Your task to perform on an android device: open app "ColorNote Notepad Notes" (install if not already installed) and enter user name: "unbridled@gmail.com" and password: "regularly" Image 0: 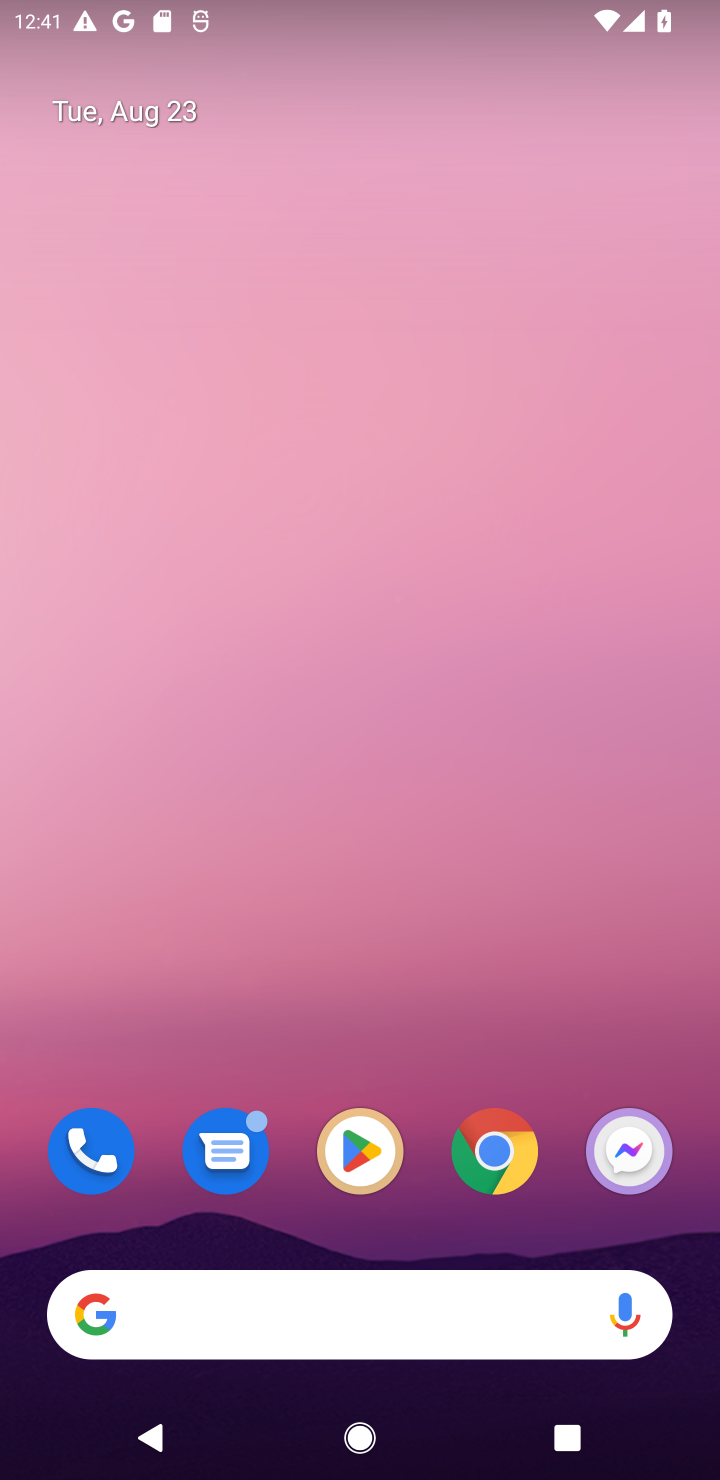
Step 0: click (310, 1122)
Your task to perform on an android device: open app "ColorNote Notepad Notes" (install if not already installed) and enter user name: "unbridled@gmail.com" and password: "regularly" Image 1: 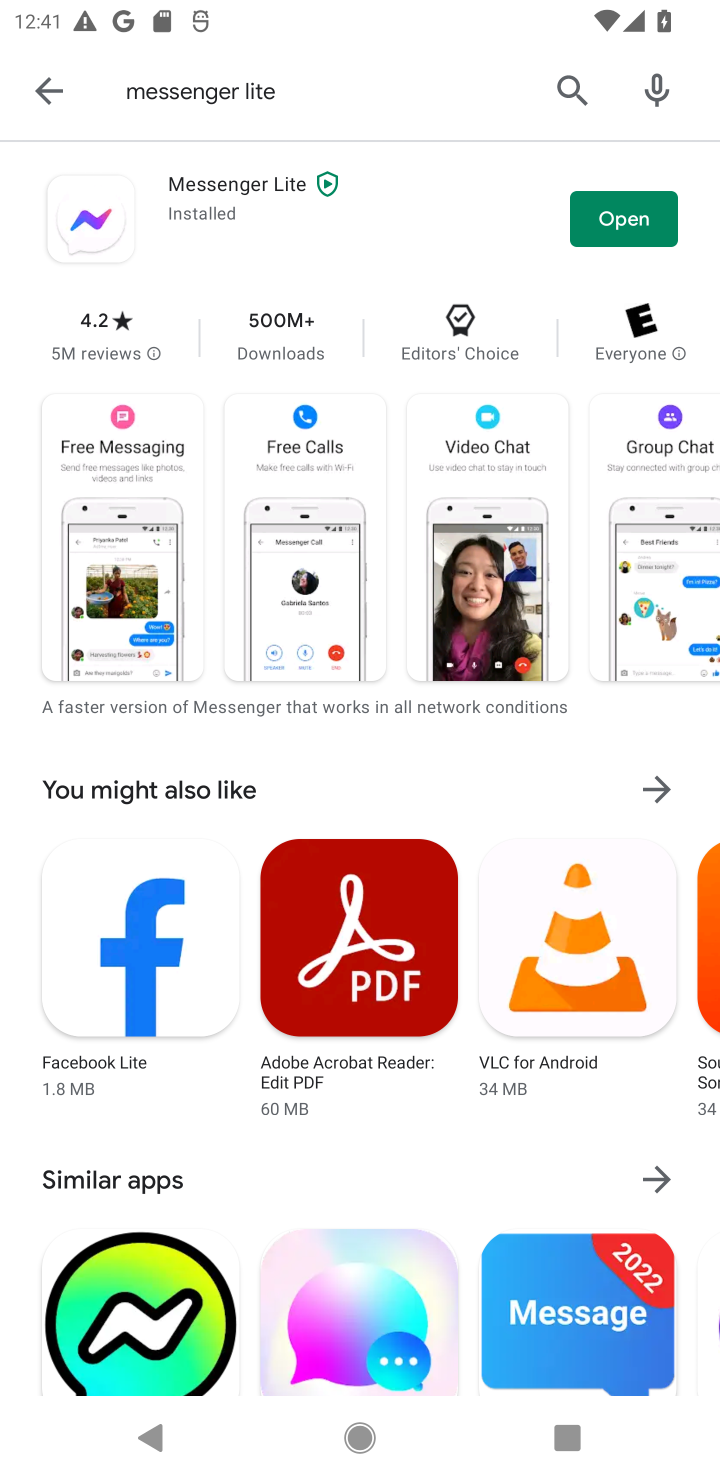
Step 1: click (565, 86)
Your task to perform on an android device: open app "ColorNote Notepad Notes" (install if not already installed) and enter user name: "unbridled@gmail.com" and password: "regularly" Image 2: 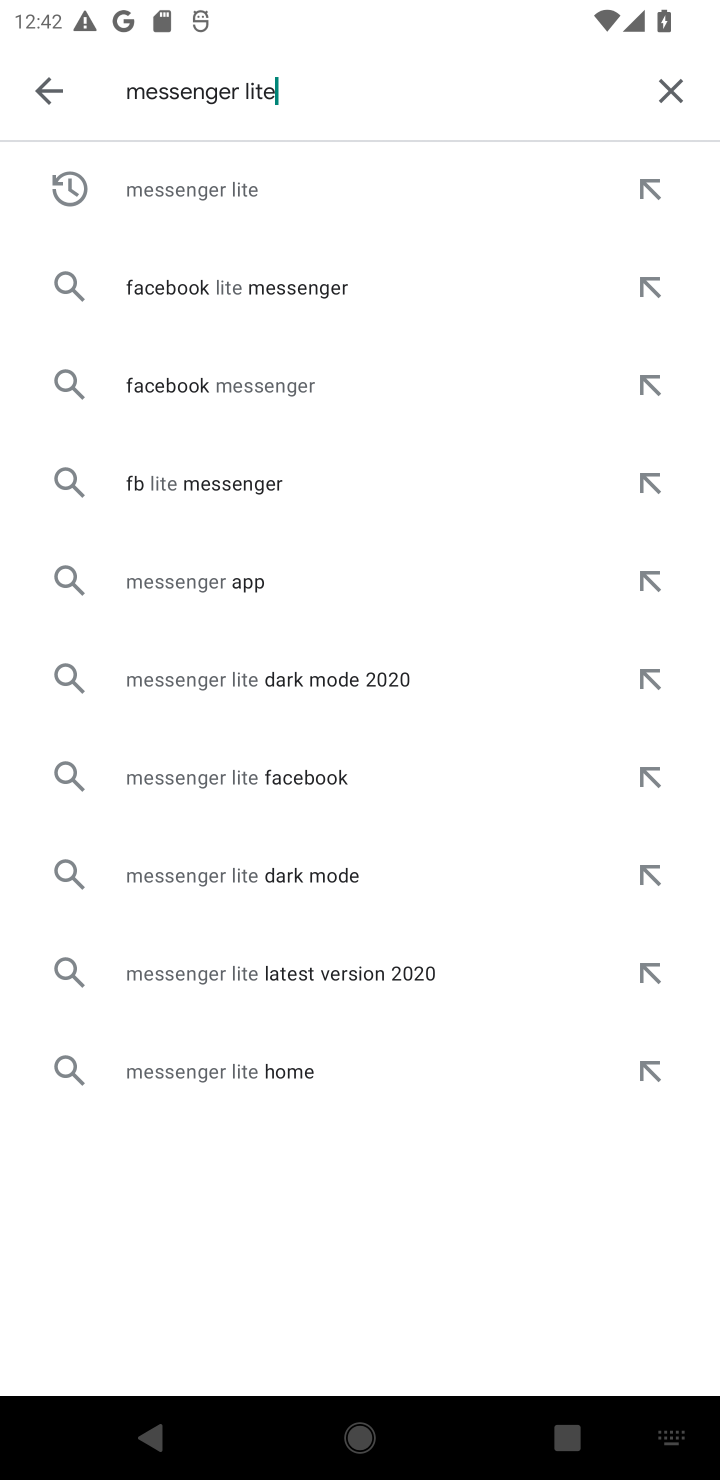
Step 2: click (654, 84)
Your task to perform on an android device: open app "ColorNote Notepad Notes" (install if not already installed) and enter user name: "unbridled@gmail.com" and password: "regularly" Image 3: 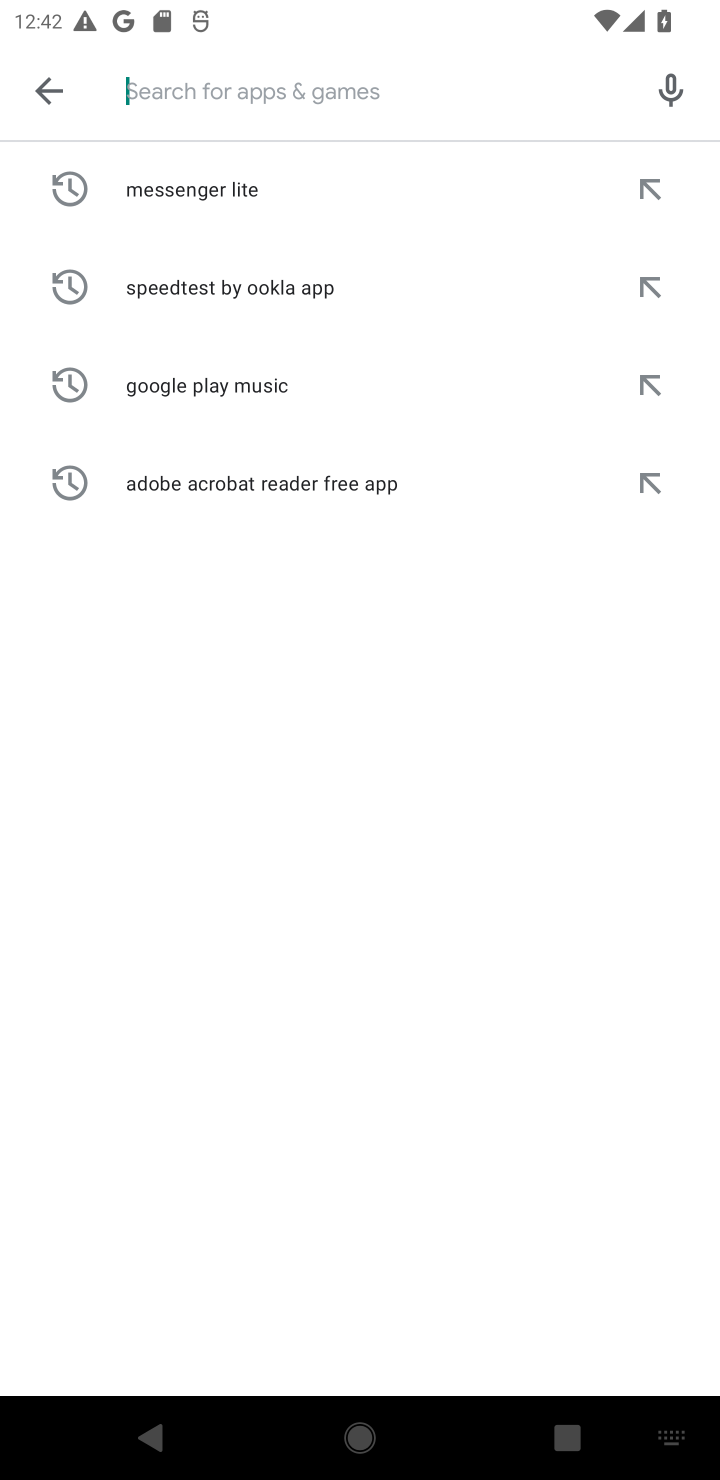
Step 3: type "ColorNote Notepad Notes"
Your task to perform on an android device: open app "ColorNote Notepad Notes" (install if not already installed) and enter user name: "unbridled@gmail.com" and password: "regularly" Image 4: 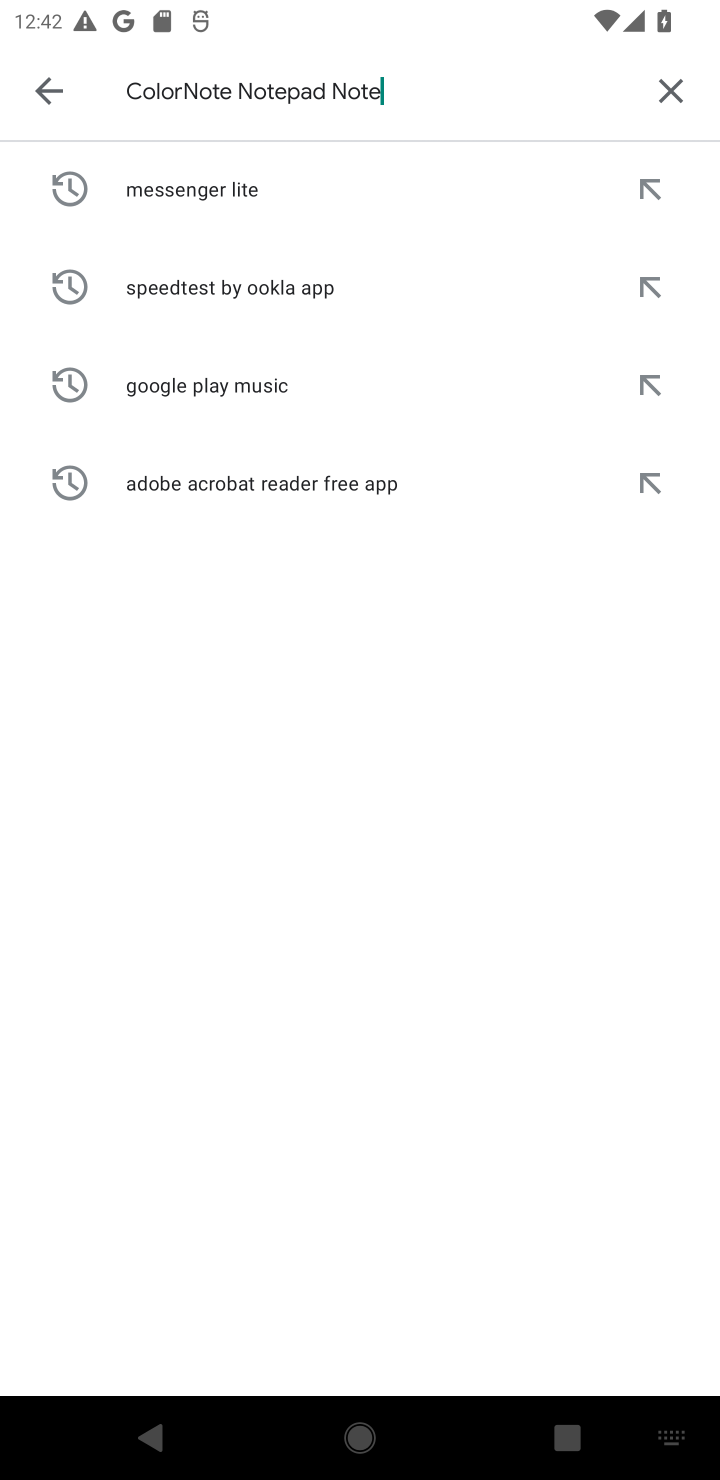
Step 4: type ""
Your task to perform on an android device: open app "ColorNote Notepad Notes" (install if not already installed) and enter user name: "unbridled@gmail.com" and password: "regularly" Image 5: 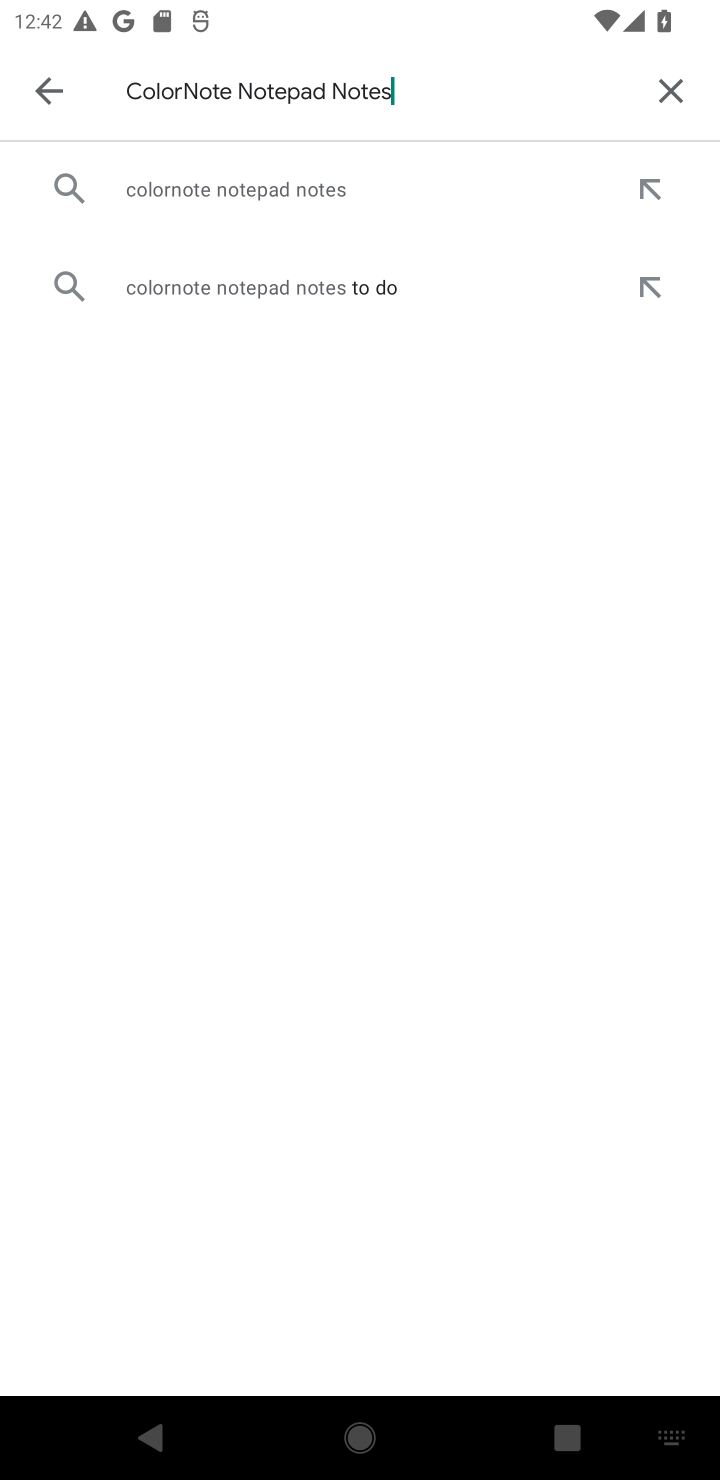
Step 5: click (363, 185)
Your task to perform on an android device: open app "ColorNote Notepad Notes" (install if not already installed) and enter user name: "unbridled@gmail.com" and password: "regularly" Image 6: 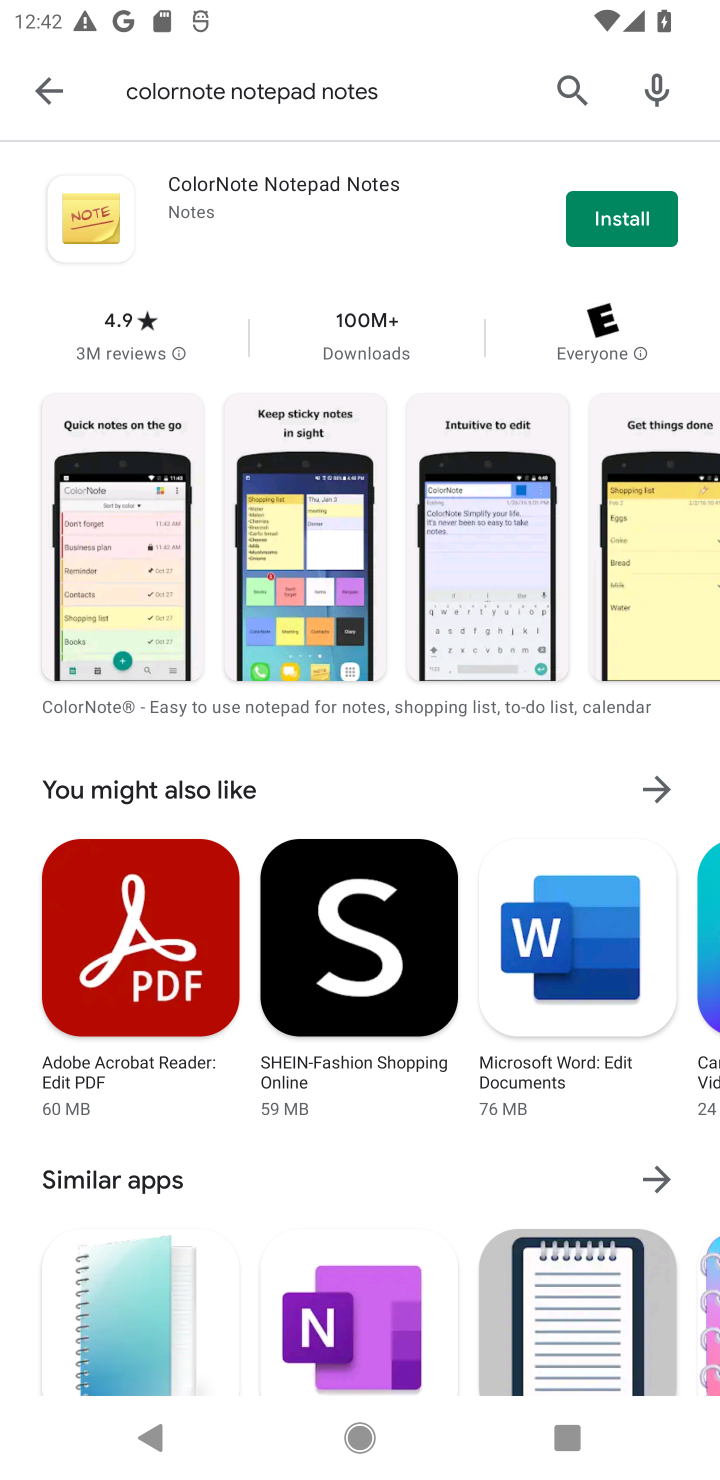
Step 6: click (583, 236)
Your task to perform on an android device: open app "ColorNote Notepad Notes" (install if not already installed) and enter user name: "unbridled@gmail.com" and password: "regularly" Image 7: 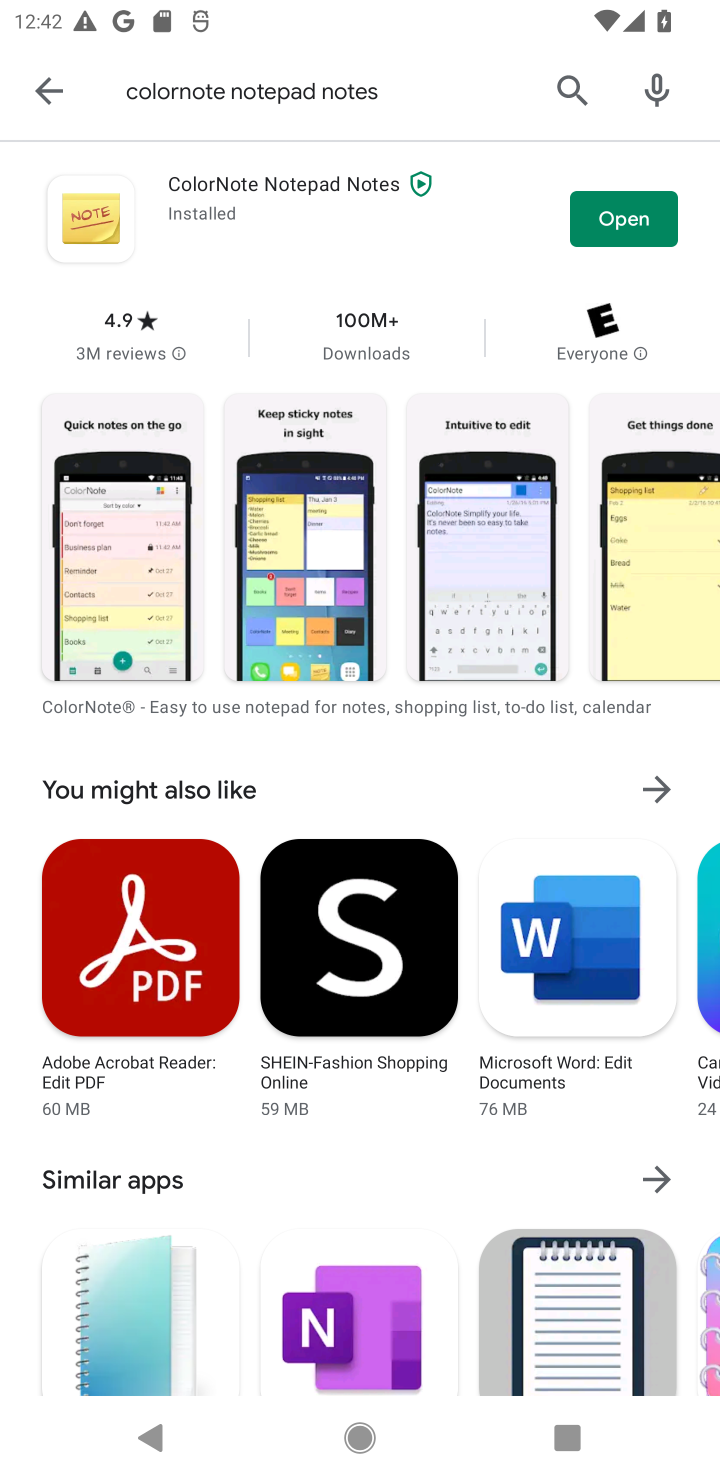
Step 7: click (624, 231)
Your task to perform on an android device: open app "ColorNote Notepad Notes" (install if not already installed) and enter user name: "unbridled@gmail.com" and password: "regularly" Image 8: 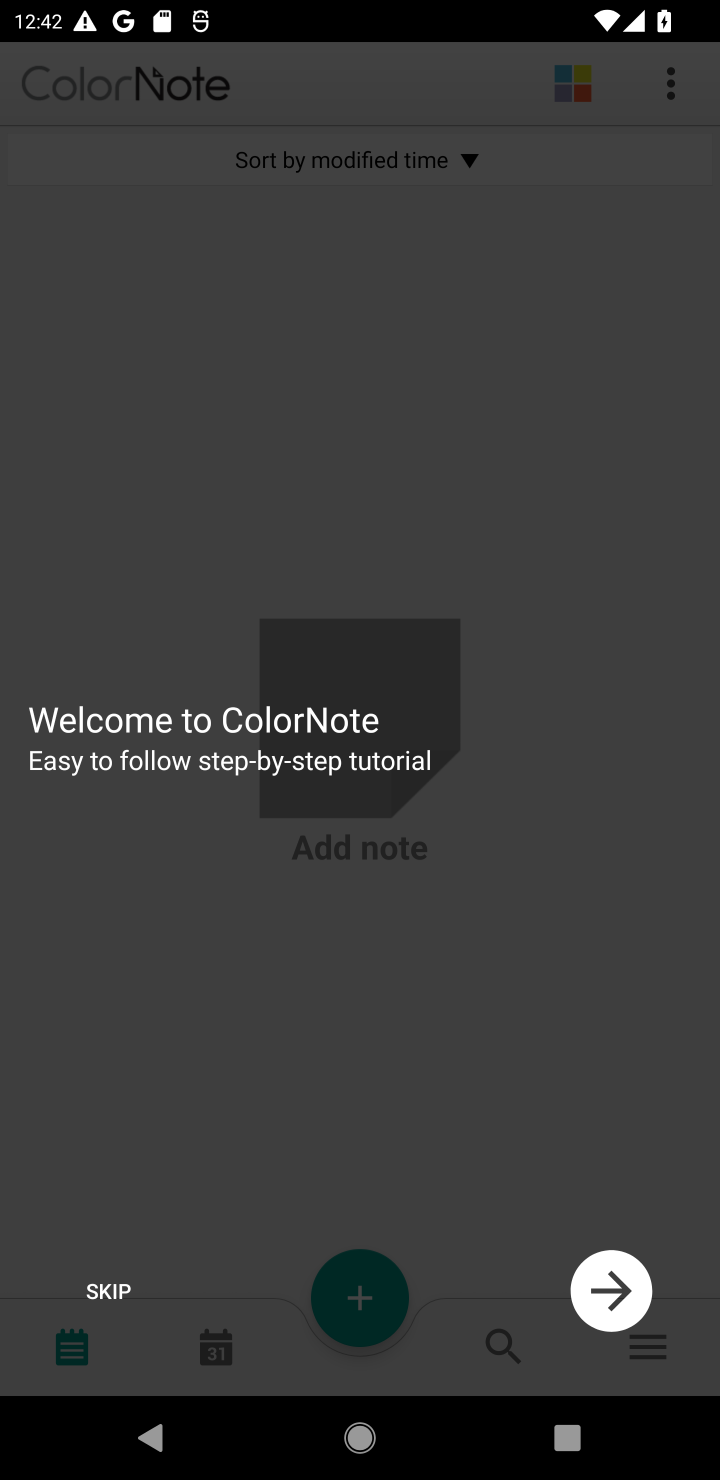
Step 8: task complete